Your task to perform on an android device: Search for the ikea billy bookcase Image 0: 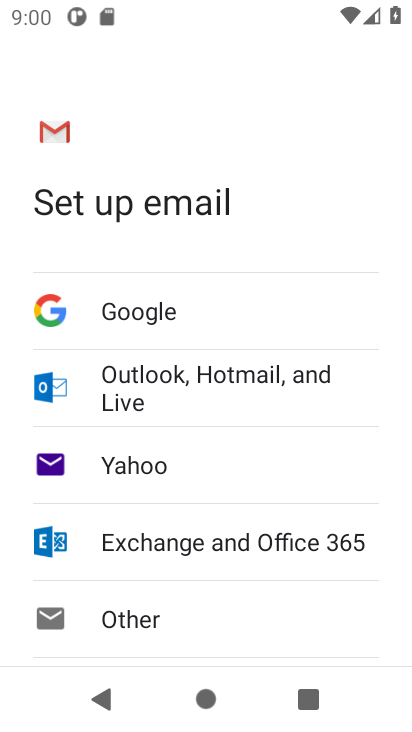
Step 0: press home button
Your task to perform on an android device: Search for the ikea billy bookcase Image 1: 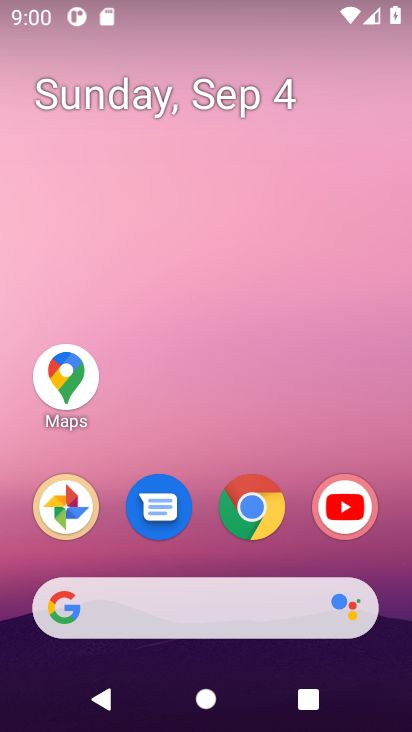
Step 1: click (250, 504)
Your task to perform on an android device: Search for the ikea billy bookcase Image 2: 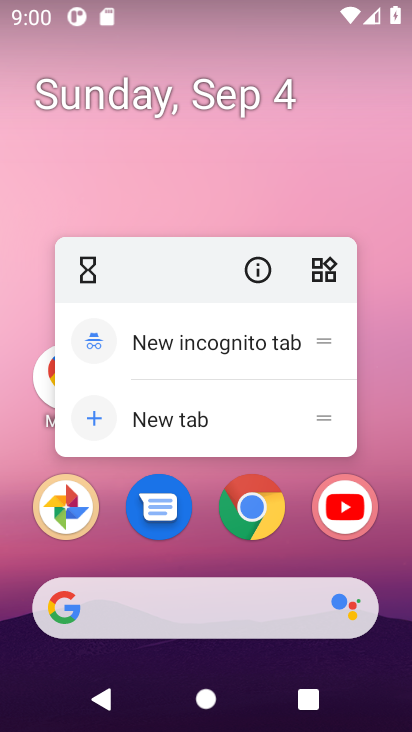
Step 2: click (256, 507)
Your task to perform on an android device: Search for the ikea billy bookcase Image 3: 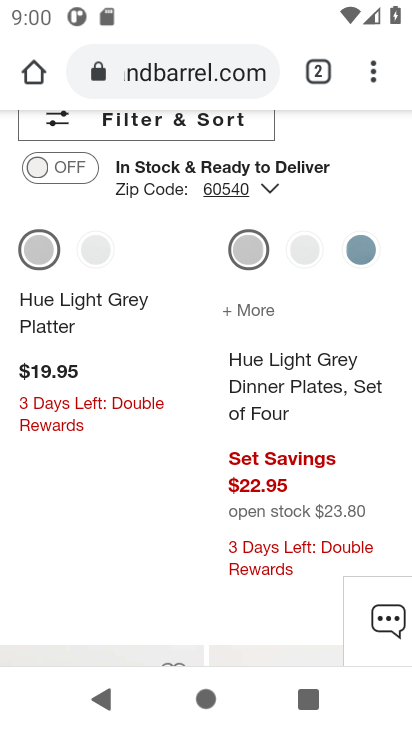
Step 3: click (133, 53)
Your task to perform on an android device: Search for the ikea billy bookcase Image 4: 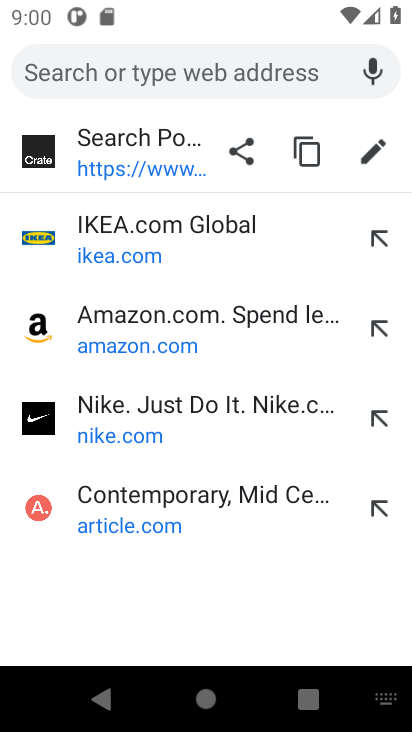
Step 4: type "ikea billy bookcase"
Your task to perform on an android device: Search for the ikea billy bookcase Image 5: 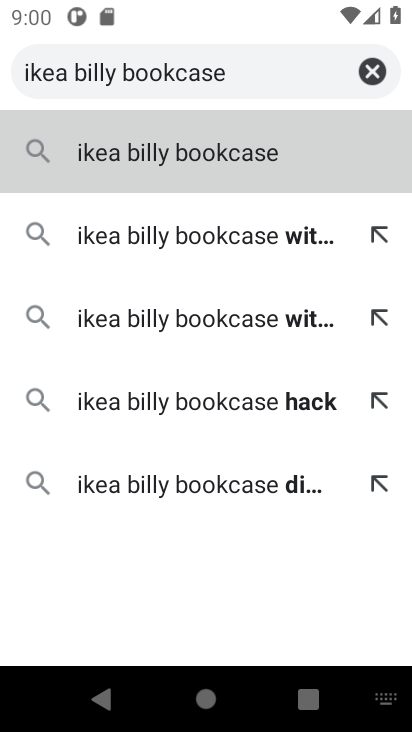
Step 5: click (114, 145)
Your task to perform on an android device: Search for the ikea billy bookcase Image 6: 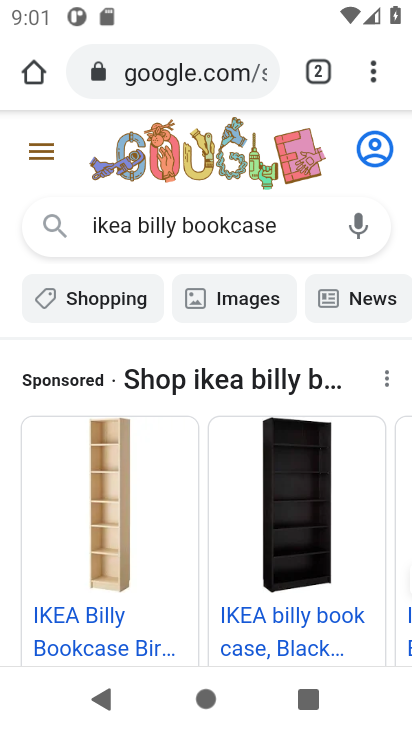
Step 6: drag from (201, 402) to (187, 158)
Your task to perform on an android device: Search for the ikea billy bookcase Image 7: 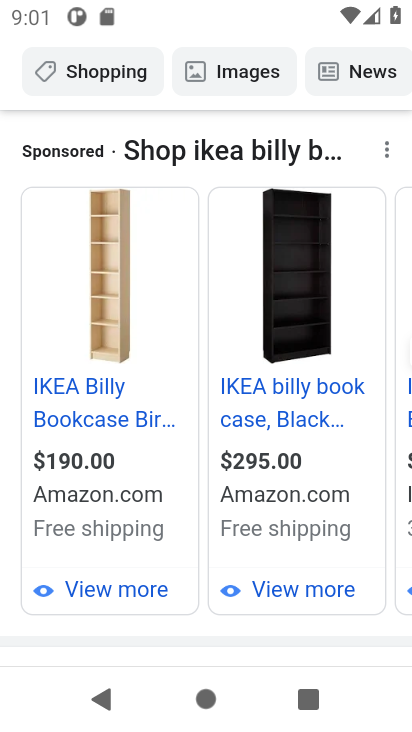
Step 7: drag from (205, 608) to (202, 424)
Your task to perform on an android device: Search for the ikea billy bookcase Image 8: 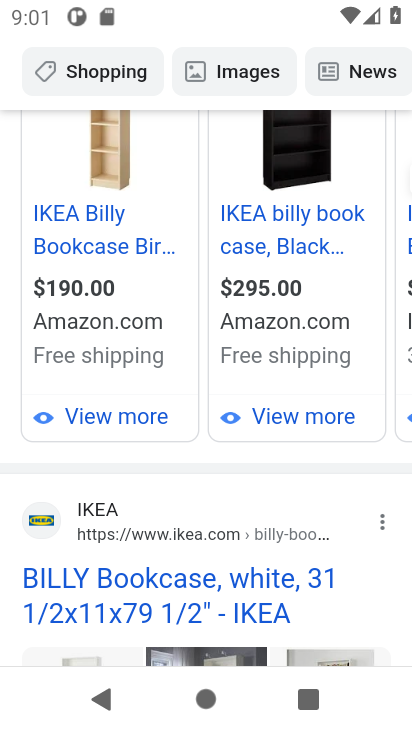
Step 8: drag from (213, 573) to (209, 236)
Your task to perform on an android device: Search for the ikea billy bookcase Image 9: 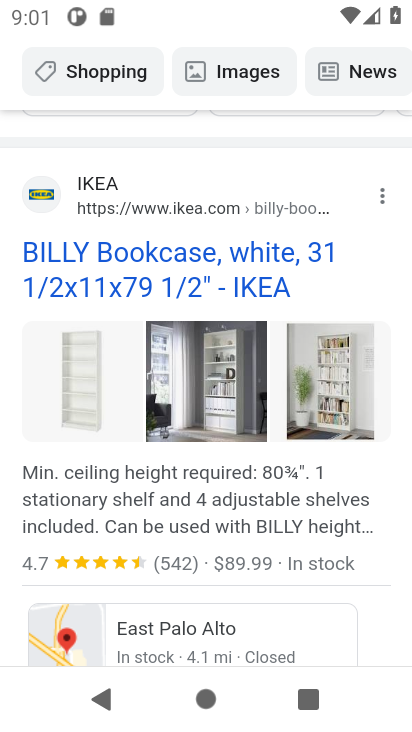
Step 9: drag from (196, 575) to (95, 260)
Your task to perform on an android device: Search for the ikea billy bookcase Image 10: 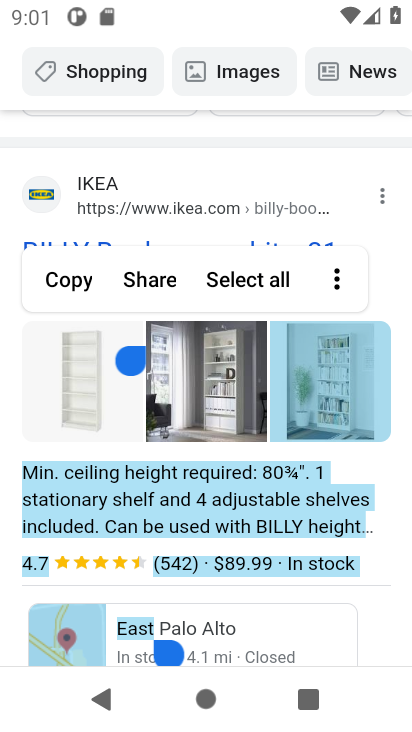
Step 10: click (199, 445)
Your task to perform on an android device: Search for the ikea billy bookcase Image 11: 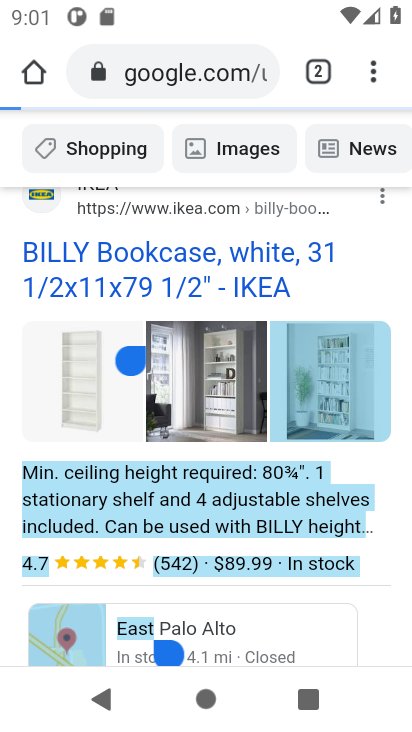
Step 11: drag from (199, 438) to (189, 205)
Your task to perform on an android device: Search for the ikea billy bookcase Image 12: 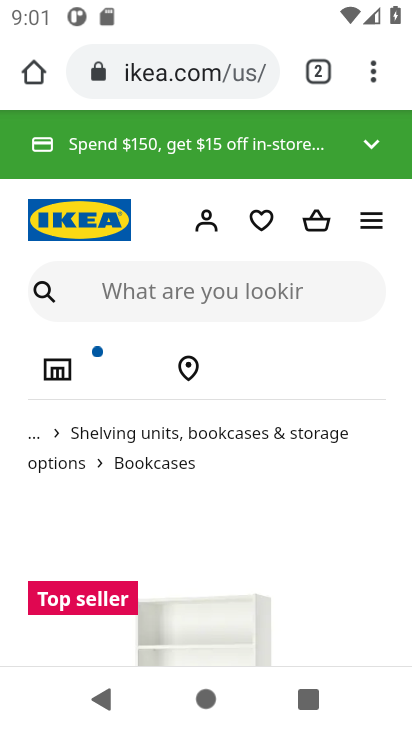
Step 12: drag from (329, 588) to (289, 176)
Your task to perform on an android device: Search for the ikea billy bookcase Image 13: 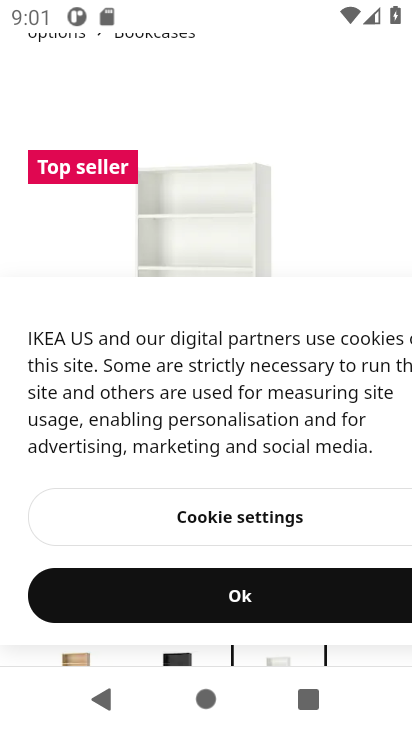
Step 13: click (240, 597)
Your task to perform on an android device: Search for the ikea billy bookcase Image 14: 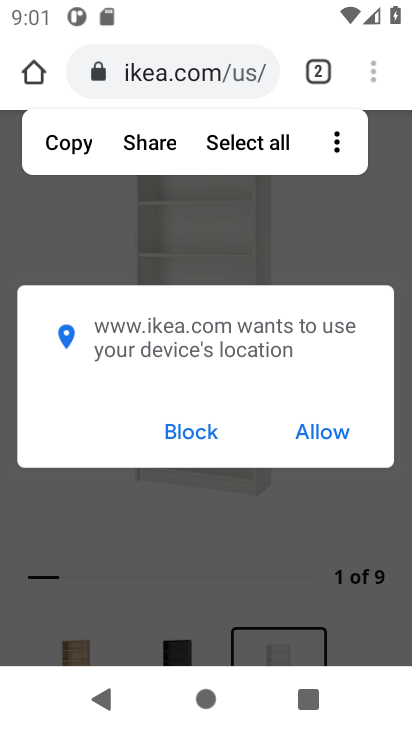
Step 14: click (182, 431)
Your task to perform on an android device: Search for the ikea billy bookcase Image 15: 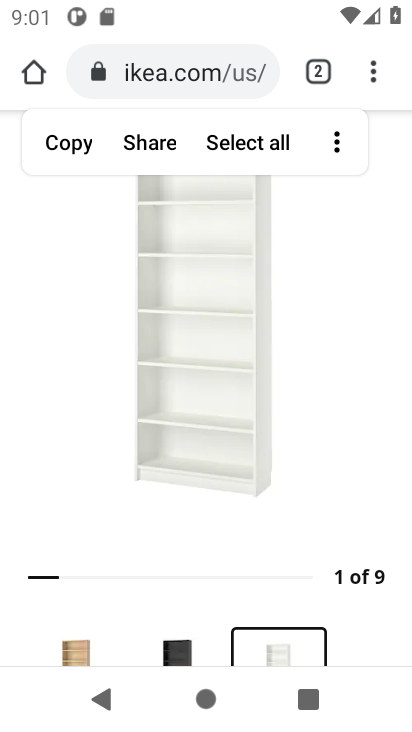
Step 15: task complete